Your task to perform on an android device: Open calendar and show me the fourth week of next month Image 0: 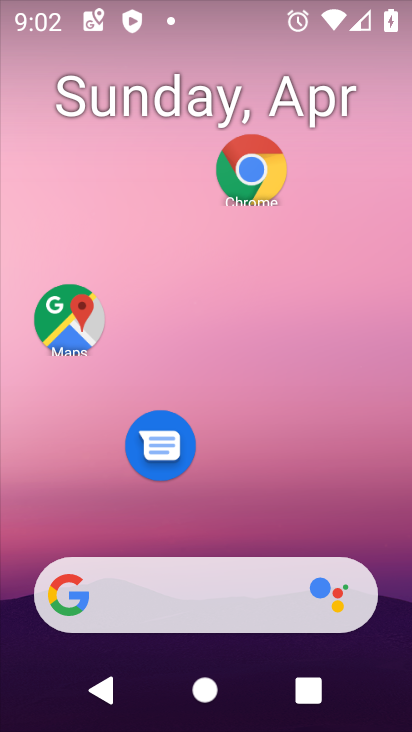
Step 0: drag from (268, 487) to (292, 49)
Your task to perform on an android device: Open calendar and show me the fourth week of next month Image 1: 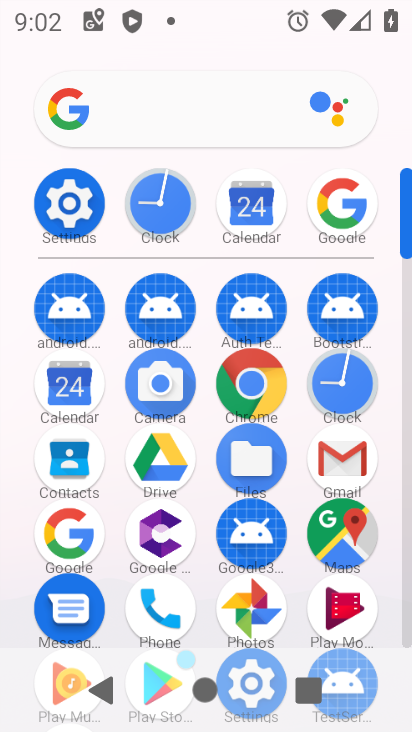
Step 1: click (71, 386)
Your task to perform on an android device: Open calendar and show me the fourth week of next month Image 2: 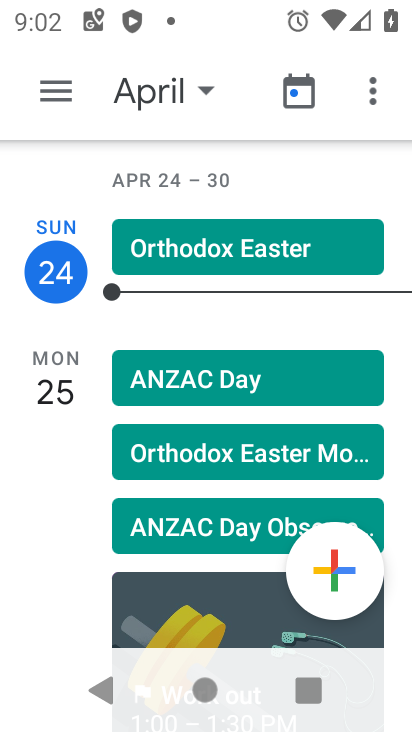
Step 2: click (203, 89)
Your task to perform on an android device: Open calendar and show me the fourth week of next month Image 3: 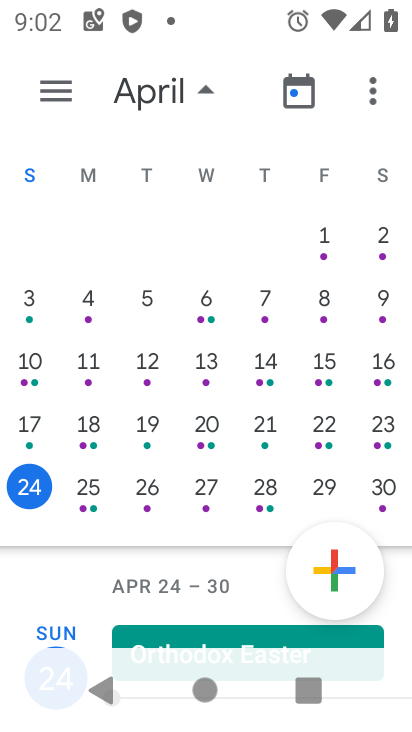
Step 3: drag from (356, 462) to (6, 469)
Your task to perform on an android device: Open calendar and show me the fourth week of next month Image 4: 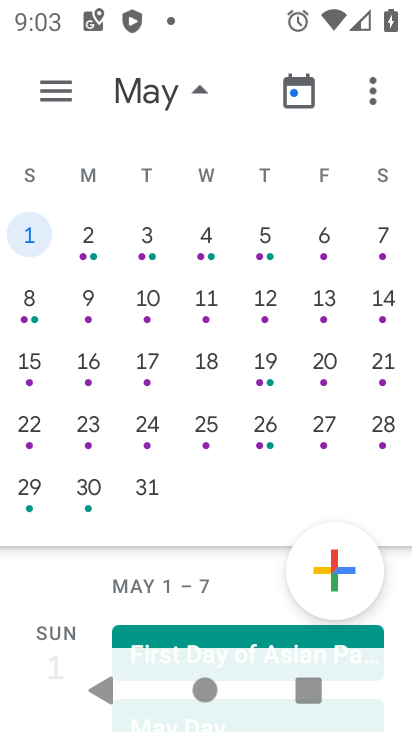
Step 4: click (212, 425)
Your task to perform on an android device: Open calendar and show me the fourth week of next month Image 5: 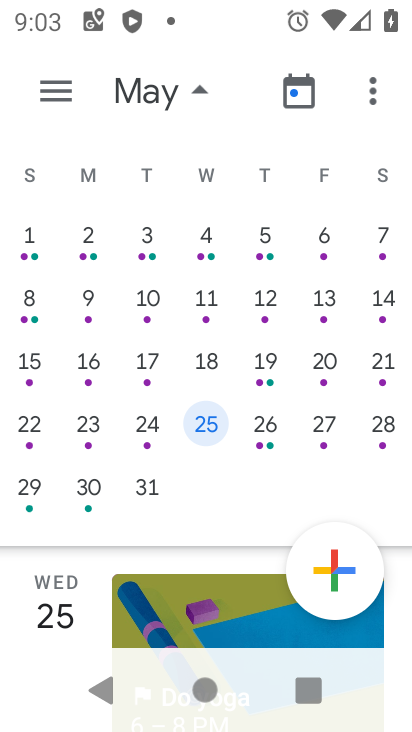
Step 5: task complete